Your task to perform on an android device: Go to internet settings Image 0: 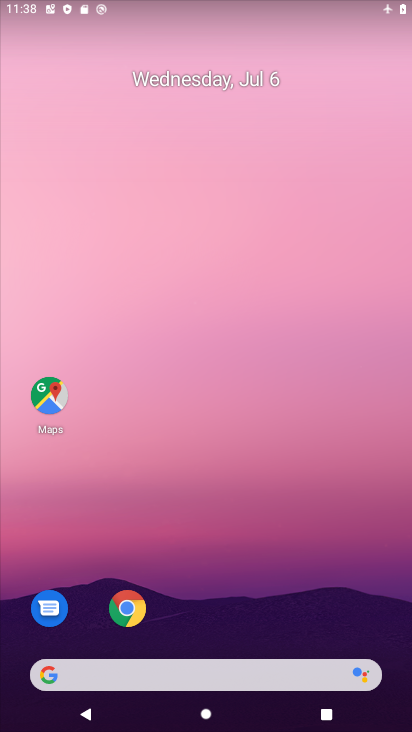
Step 0: drag from (178, 660) to (280, 158)
Your task to perform on an android device: Go to internet settings Image 1: 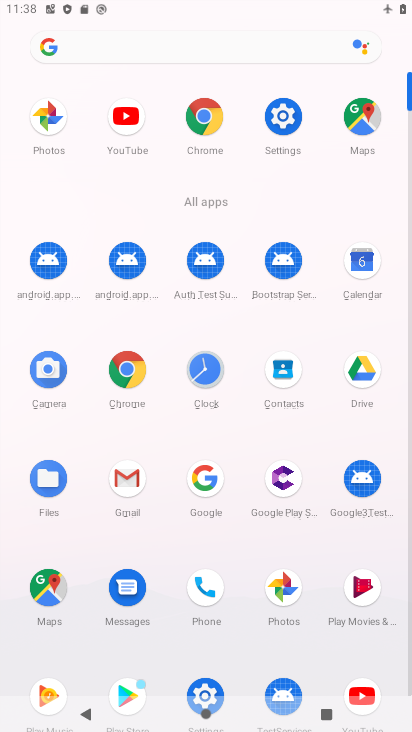
Step 1: click (288, 114)
Your task to perform on an android device: Go to internet settings Image 2: 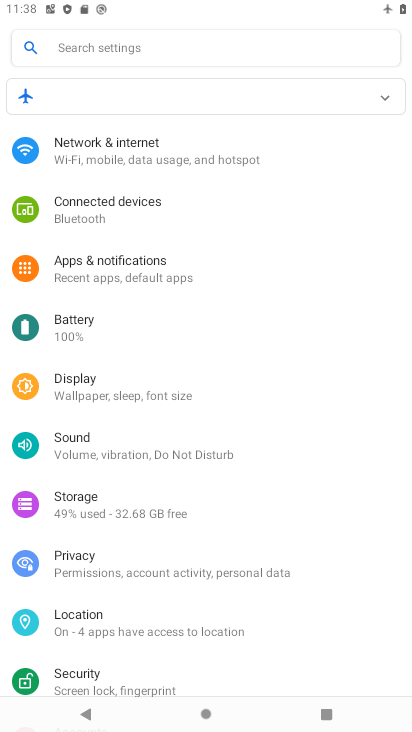
Step 2: click (136, 162)
Your task to perform on an android device: Go to internet settings Image 3: 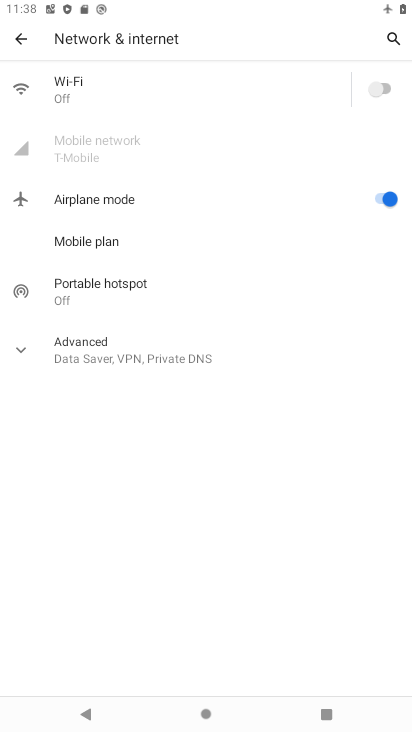
Step 3: click (94, 350)
Your task to perform on an android device: Go to internet settings Image 4: 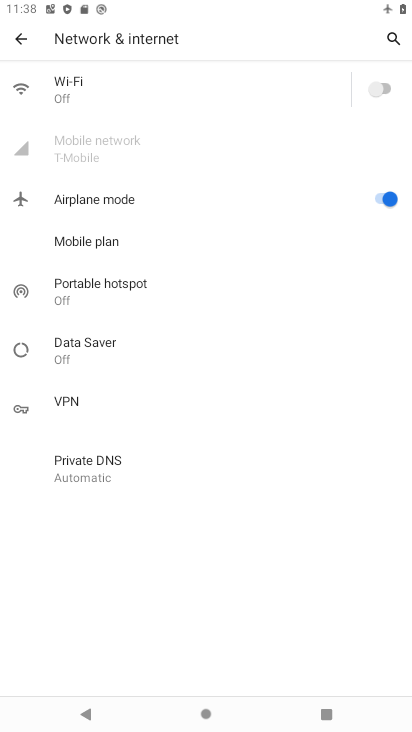
Step 4: task complete